Your task to perform on an android device: Empty the shopping cart on newegg.com. Search for dell xps on newegg.com, select the first entry, add it to the cart, then select checkout. Image 0: 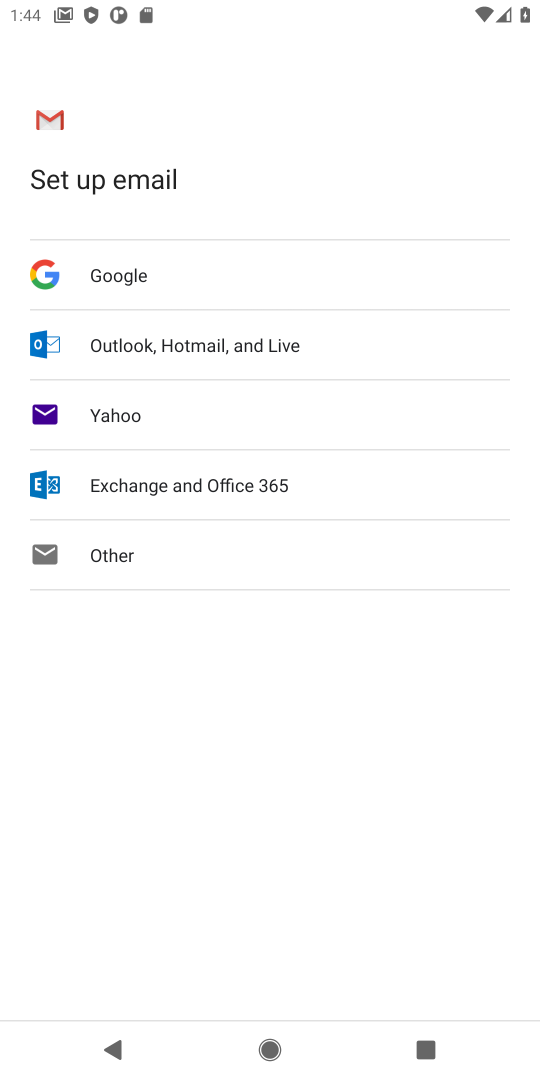
Step 0: press home button
Your task to perform on an android device: Empty the shopping cart on newegg.com. Search for dell xps on newegg.com, select the first entry, add it to the cart, then select checkout. Image 1: 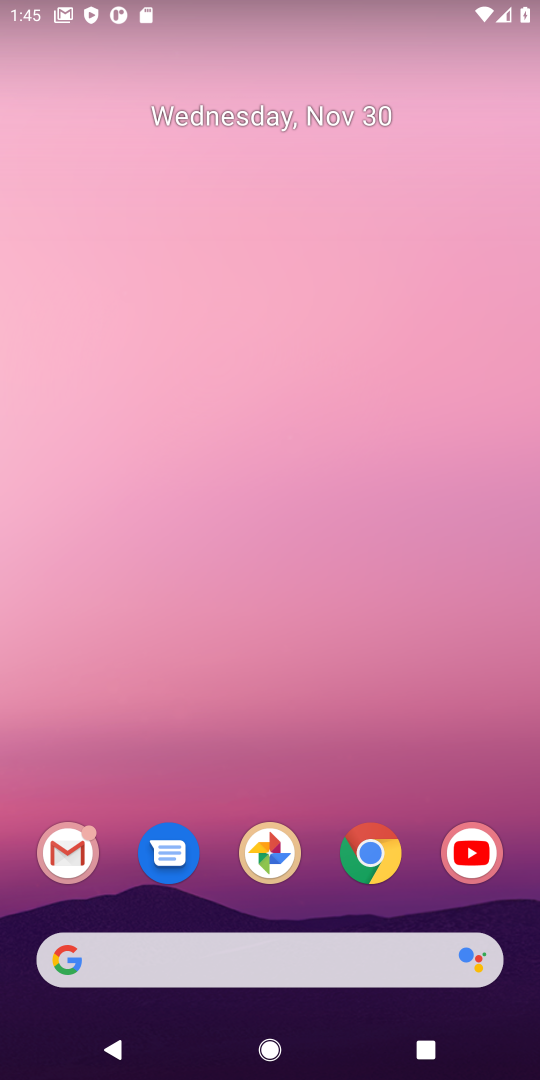
Step 1: click (359, 853)
Your task to perform on an android device: Empty the shopping cart on newegg.com. Search for dell xps on newegg.com, select the first entry, add it to the cart, then select checkout. Image 2: 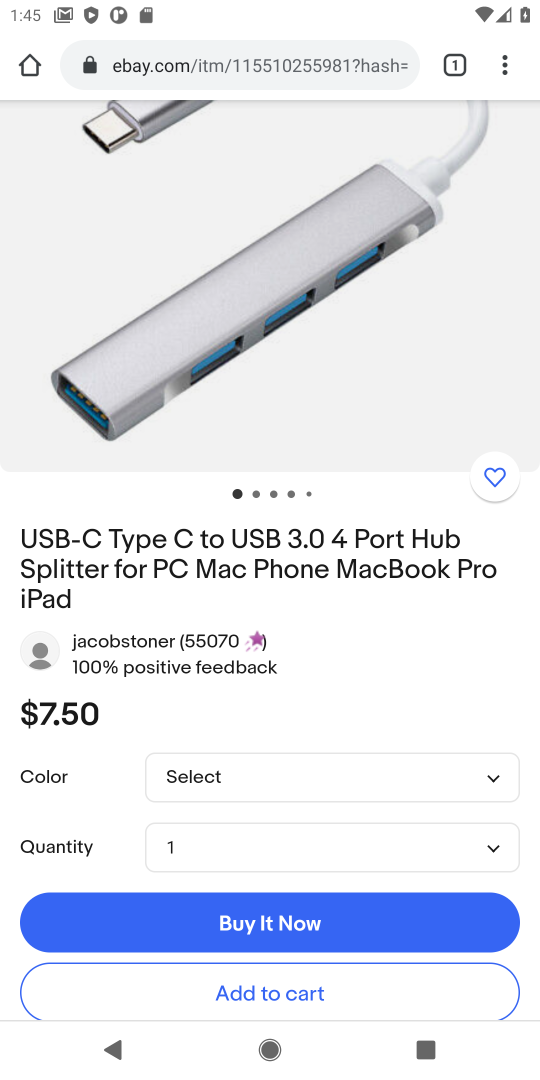
Step 2: click (240, 69)
Your task to perform on an android device: Empty the shopping cart on newegg.com. Search for dell xps on newegg.com, select the first entry, add it to the cart, then select checkout. Image 3: 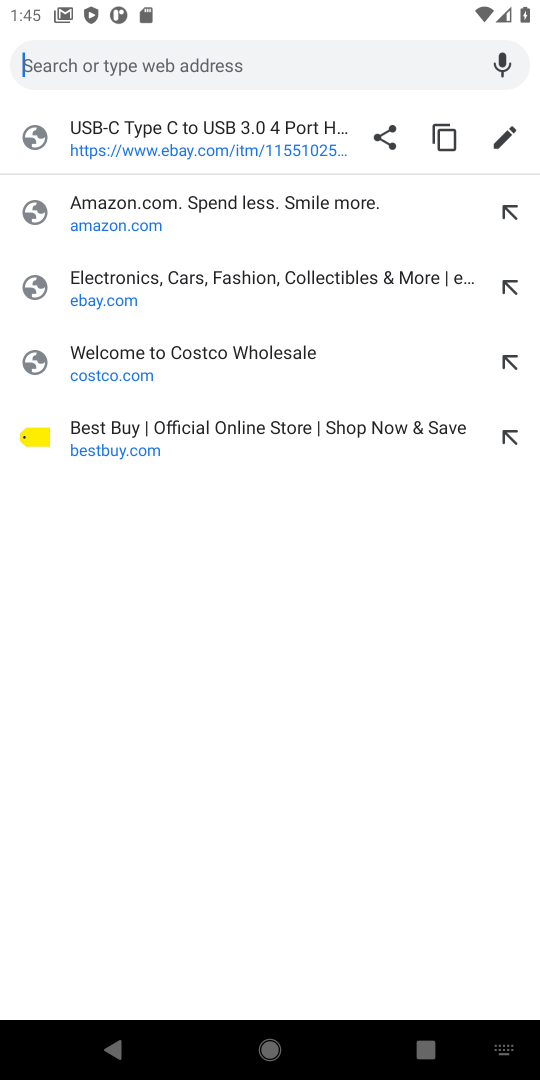
Step 3: type "newegg.com"
Your task to perform on an android device: Empty the shopping cart on newegg.com. Search for dell xps on newegg.com, select the first entry, add it to the cart, then select checkout. Image 4: 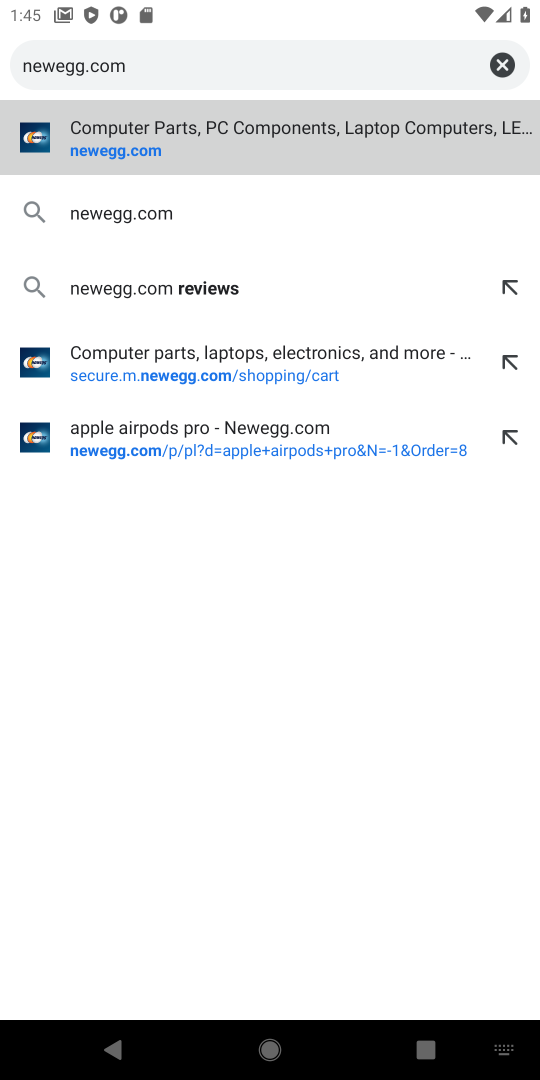
Step 4: click (127, 152)
Your task to perform on an android device: Empty the shopping cart on newegg.com. Search for dell xps on newegg.com, select the first entry, add it to the cart, then select checkout. Image 5: 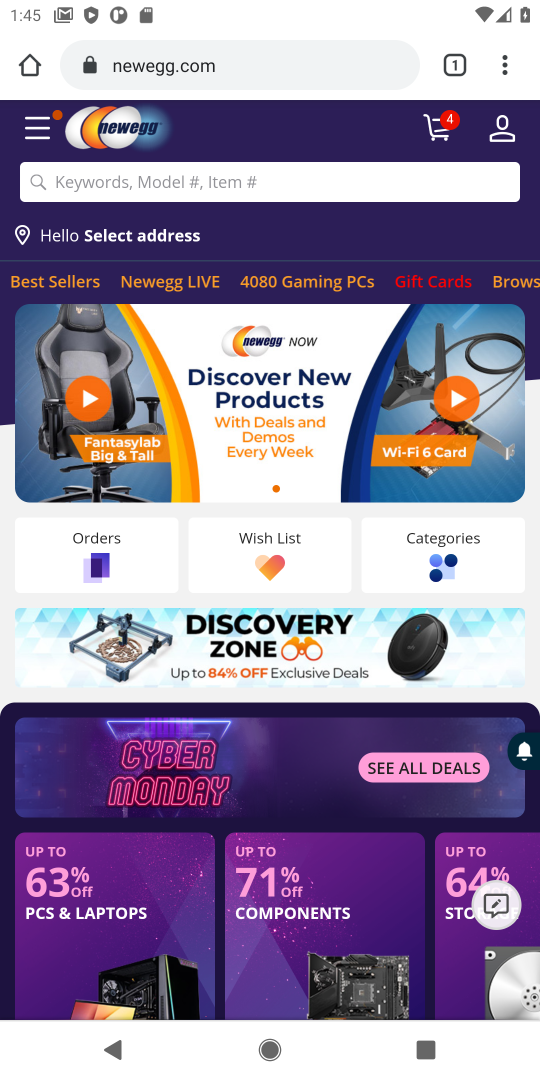
Step 5: click (440, 127)
Your task to perform on an android device: Empty the shopping cart on newegg.com. Search for dell xps on newegg.com, select the first entry, add it to the cart, then select checkout. Image 6: 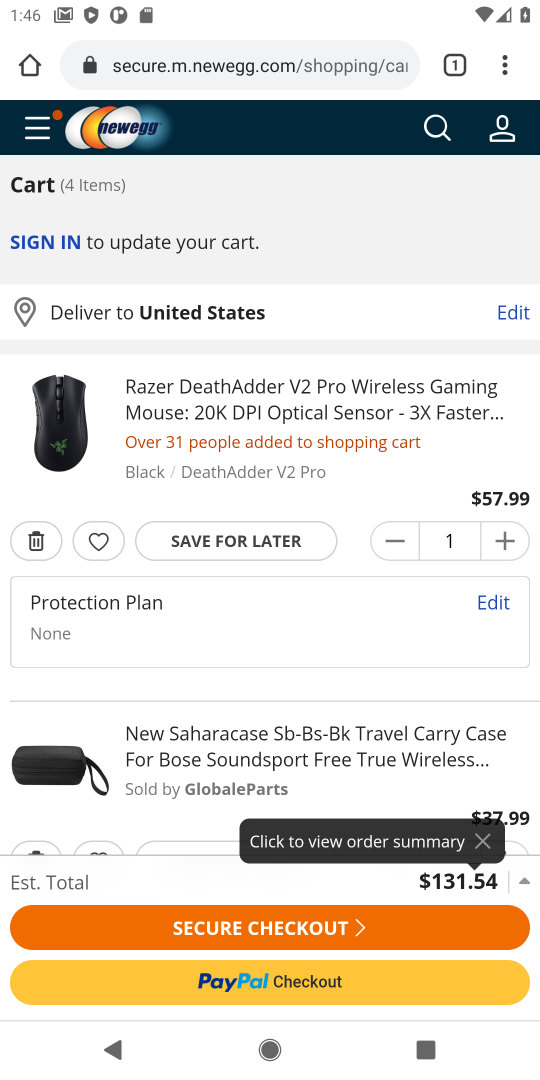
Step 6: click (36, 546)
Your task to perform on an android device: Empty the shopping cart on newegg.com. Search for dell xps on newegg.com, select the first entry, add it to the cart, then select checkout. Image 7: 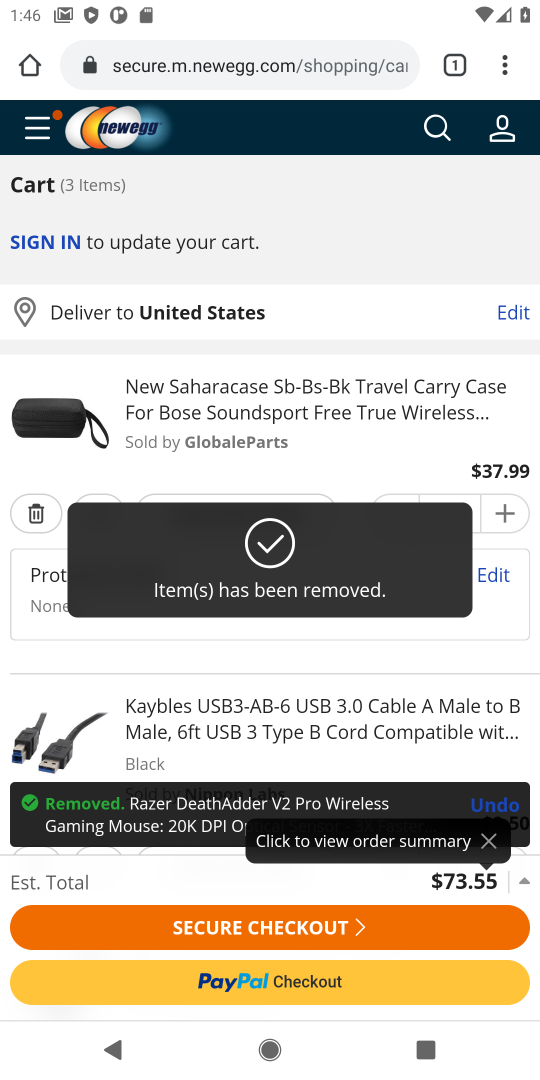
Step 7: click (37, 521)
Your task to perform on an android device: Empty the shopping cart on newegg.com. Search for dell xps on newegg.com, select the first entry, add it to the cart, then select checkout. Image 8: 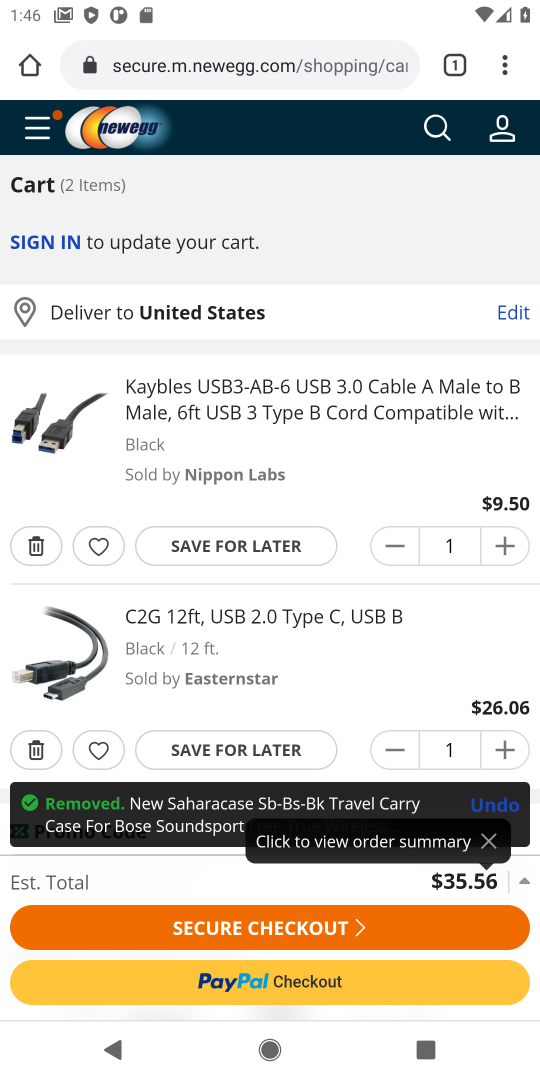
Step 8: click (32, 547)
Your task to perform on an android device: Empty the shopping cart on newegg.com. Search for dell xps on newegg.com, select the first entry, add it to the cart, then select checkout. Image 9: 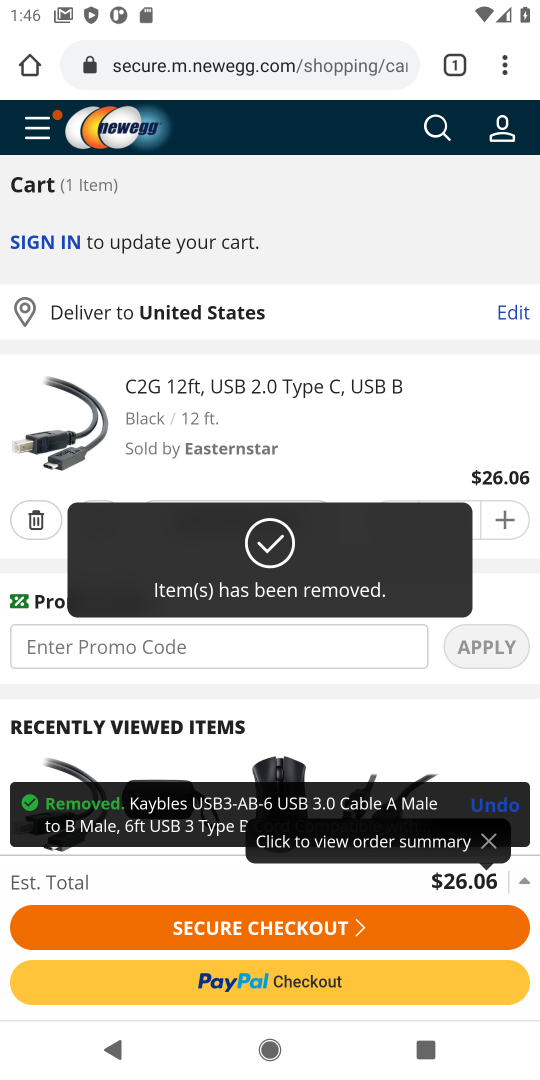
Step 9: click (32, 523)
Your task to perform on an android device: Empty the shopping cart on newegg.com. Search for dell xps on newegg.com, select the first entry, add it to the cart, then select checkout. Image 10: 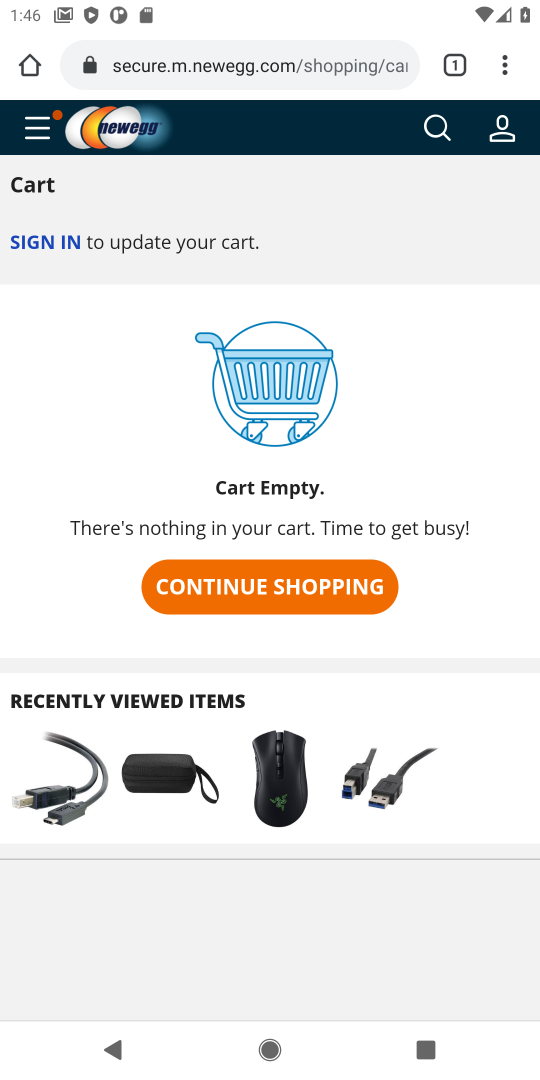
Step 10: click (441, 125)
Your task to perform on an android device: Empty the shopping cart on newegg.com. Search for dell xps on newegg.com, select the first entry, add it to the cart, then select checkout. Image 11: 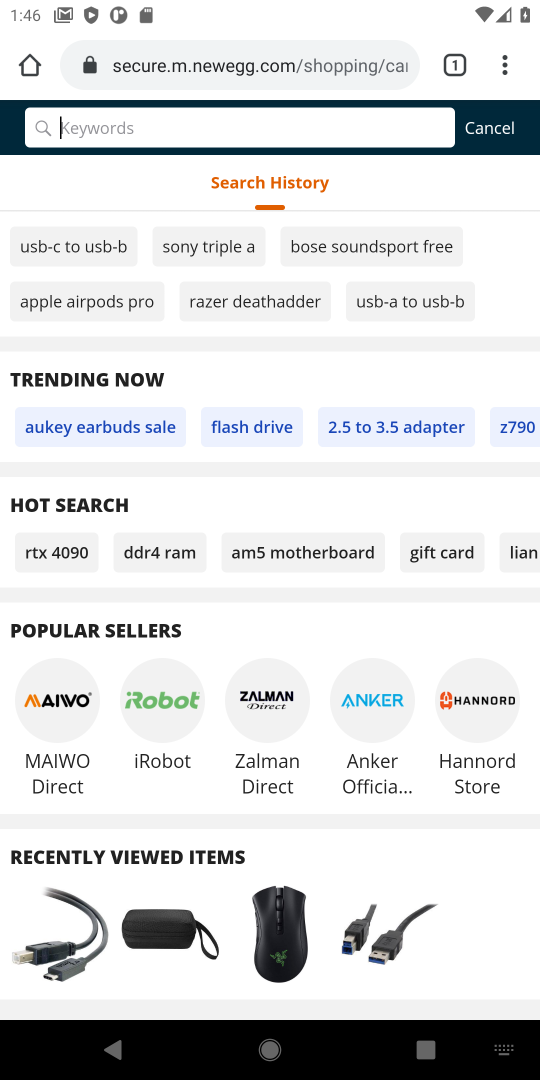
Step 11: type " dell xps"
Your task to perform on an android device: Empty the shopping cart on newegg.com. Search for dell xps on newegg.com, select the first entry, add it to the cart, then select checkout. Image 12: 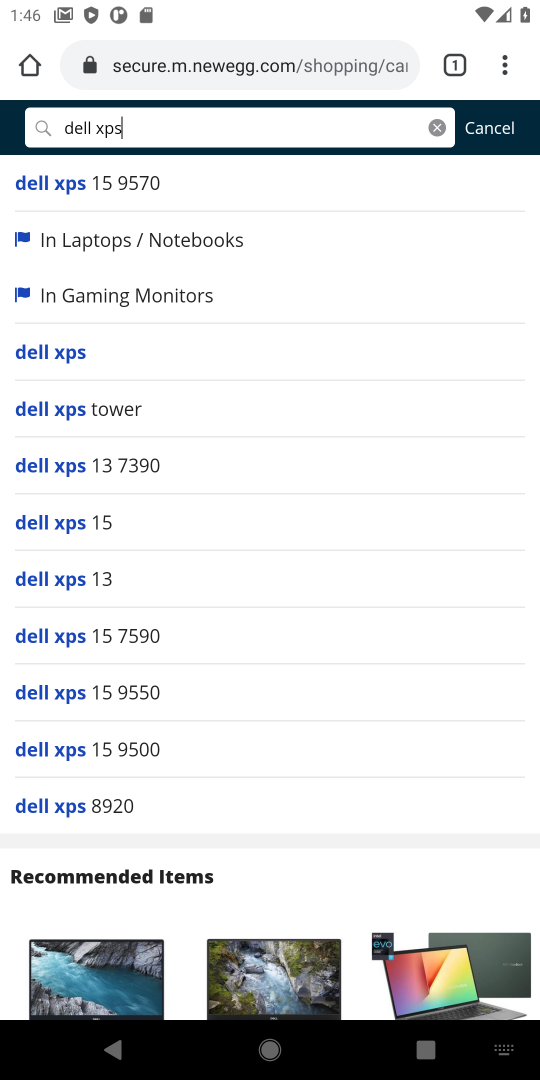
Step 12: click (52, 347)
Your task to perform on an android device: Empty the shopping cart on newegg.com. Search for dell xps on newegg.com, select the first entry, add it to the cart, then select checkout. Image 13: 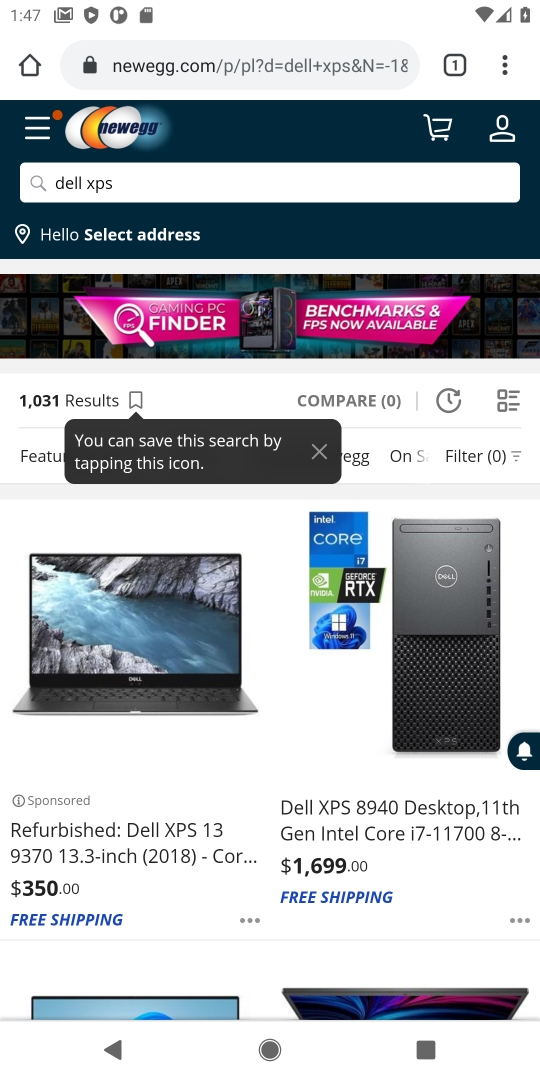
Step 13: drag from (139, 819) to (136, 668)
Your task to perform on an android device: Empty the shopping cart on newegg.com. Search for dell xps on newegg.com, select the first entry, add it to the cart, then select checkout. Image 14: 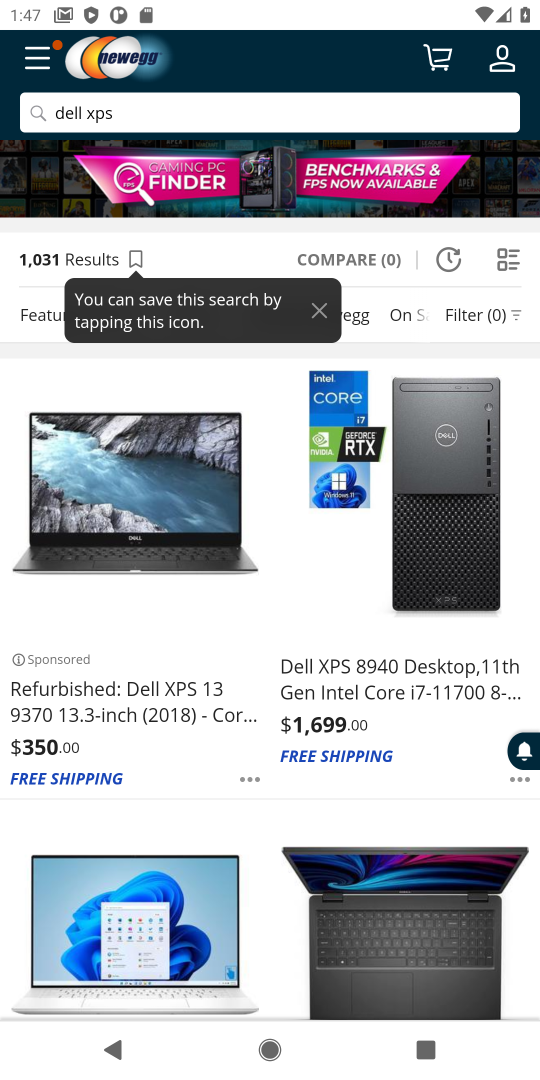
Step 14: click (115, 544)
Your task to perform on an android device: Empty the shopping cart on newegg.com. Search for dell xps on newegg.com, select the first entry, add it to the cart, then select checkout. Image 15: 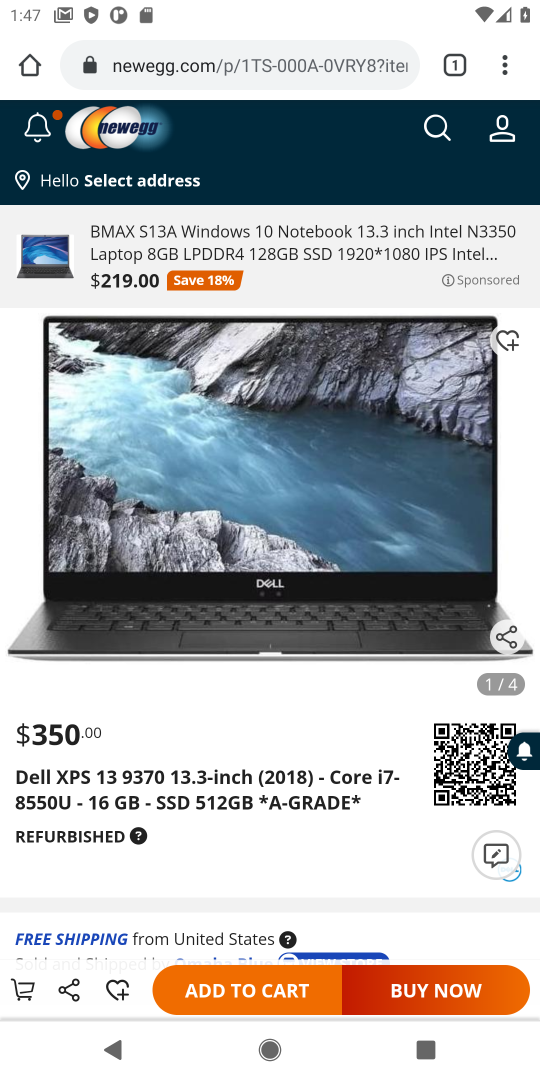
Step 15: click (227, 994)
Your task to perform on an android device: Empty the shopping cart on newegg.com. Search for dell xps on newegg.com, select the first entry, add it to the cart, then select checkout. Image 16: 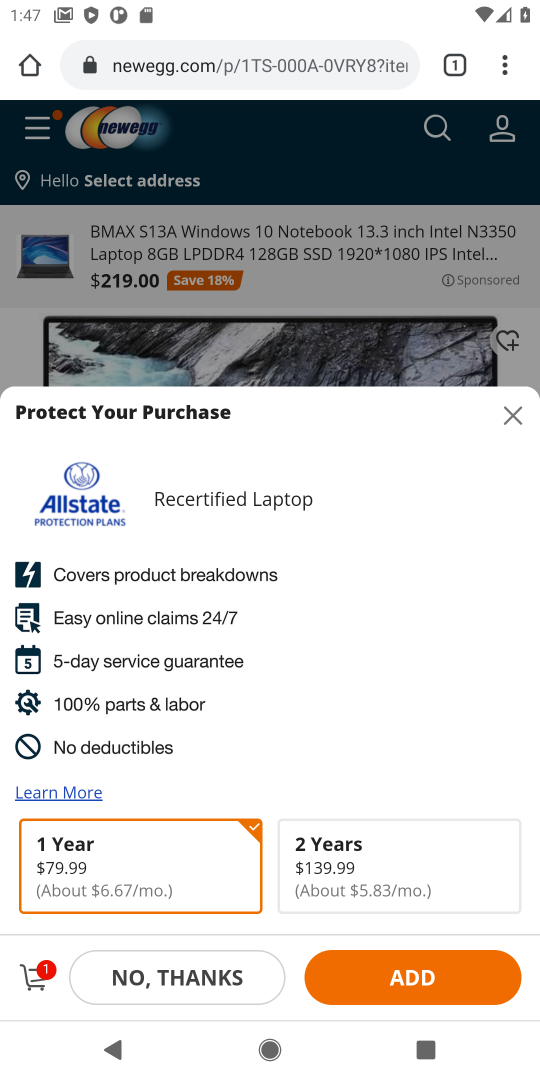
Step 16: click (40, 979)
Your task to perform on an android device: Empty the shopping cart on newegg.com. Search for dell xps on newegg.com, select the first entry, add it to the cart, then select checkout. Image 17: 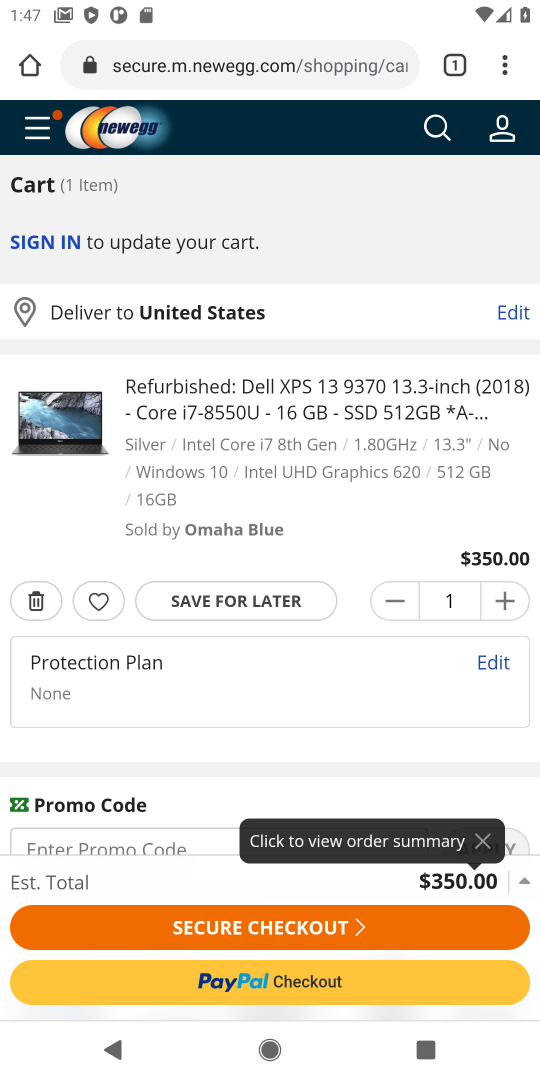
Step 17: click (244, 921)
Your task to perform on an android device: Empty the shopping cart on newegg.com. Search for dell xps on newegg.com, select the first entry, add it to the cart, then select checkout. Image 18: 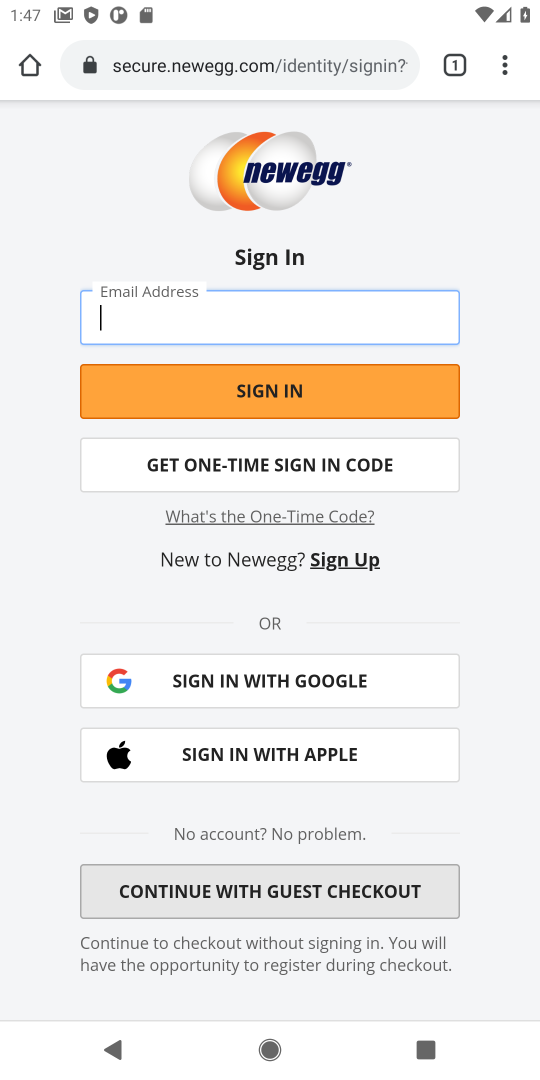
Step 18: task complete